Your task to perform on an android device: open app "The Home Depot" Image 0: 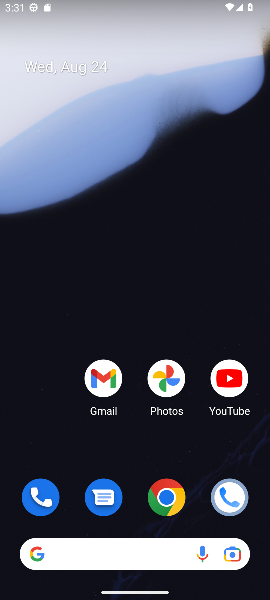
Step 0: drag from (104, 554) to (119, 173)
Your task to perform on an android device: open app "The Home Depot" Image 1: 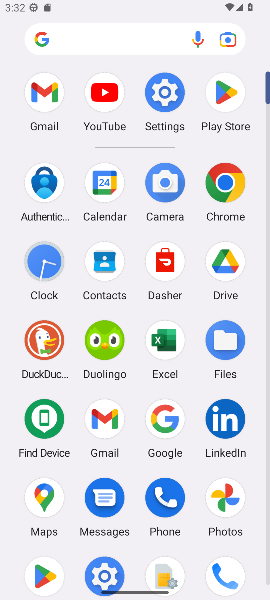
Step 1: click (193, 193)
Your task to perform on an android device: open app "The Home Depot" Image 2: 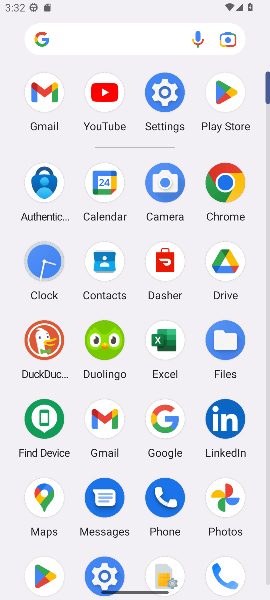
Step 2: click (224, 90)
Your task to perform on an android device: open app "The Home Depot" Image 3: 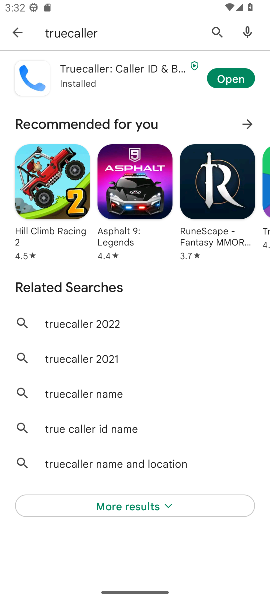
Step 3: press back button
Your task to perform on an android device: open app "The Home Depot" Image 4: 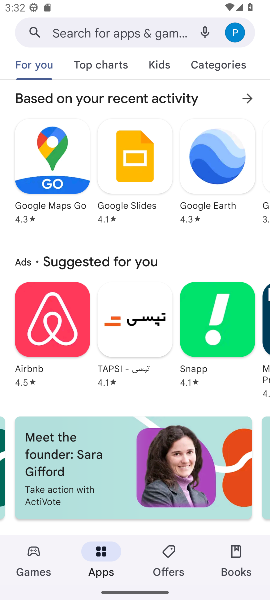
Step 4: click (142, 34)
Your task to perform on an android device: open app "The Home Depot" Image 5: 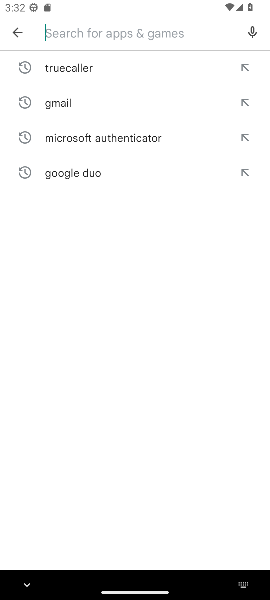
Step 5: type "The Home Depot"
Your task to perform on an android device: open app "The Home Depot" Image 6: 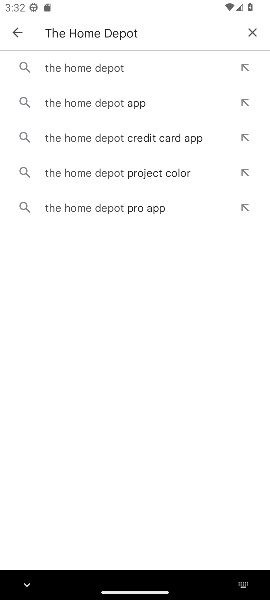
Step 6: click (107, 70)
Your task to perform on an android device: open app "The Home Depot" Image 7: 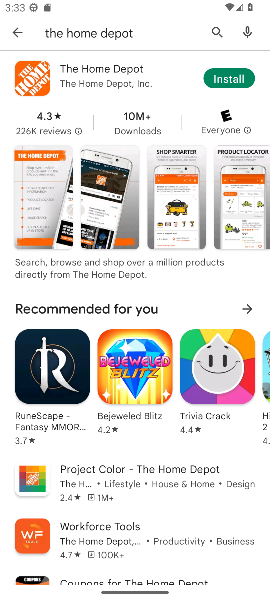
Step 7: task complete